Your task to perform on an android device: Go to Android settings Image 0: 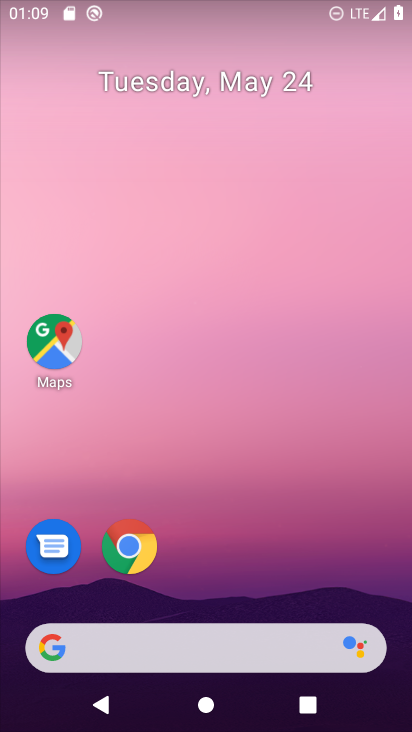
Step 0: drag from (222, 692) to (284, 101)
Your task to perform on an android device: Go to Android settings Image 1: 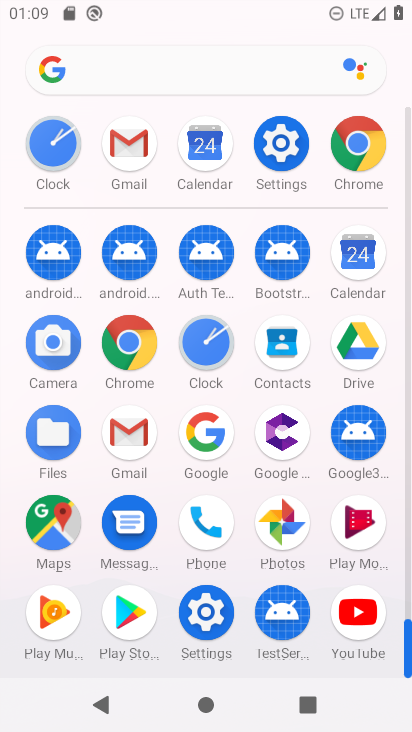
Step 1: click (277, 147)
Your task to perform on an android device: Go to Android settings Image 2: 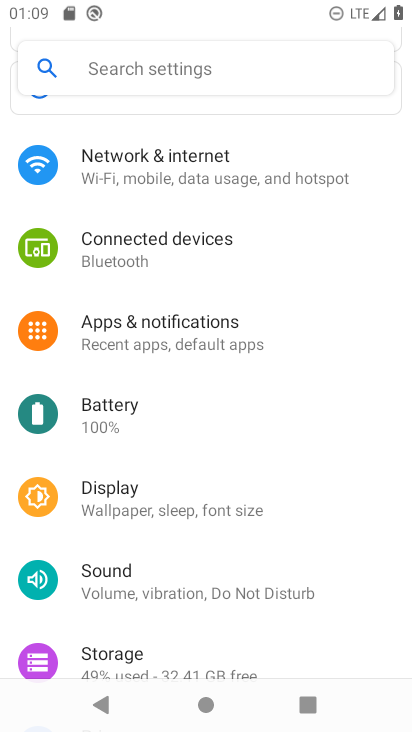
Step 2: drag from (184, 702) to (277, 119)
Your task to perform on an android device: Go to Android settings Image 3: 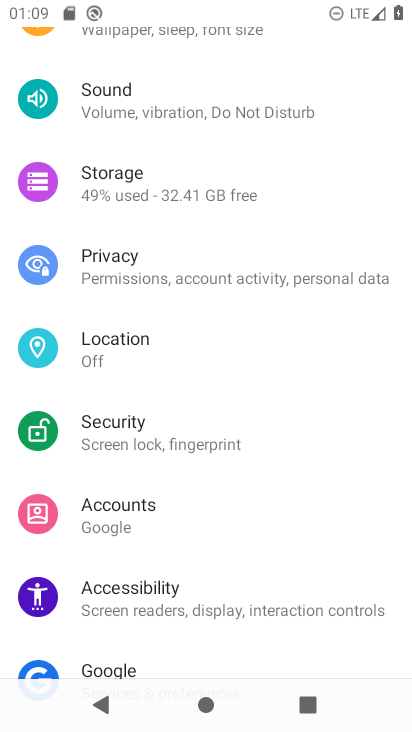
Step 3: drag from (210, 622) to (280, 180)
Your task to perform on an android device: Go to Android settings Image 4: 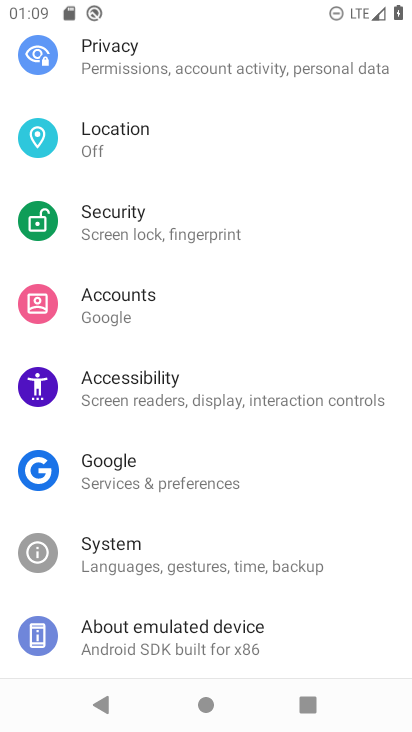
Step 4: click (119, 645)
Your task to perform on an android device: Go to Android settings Image 5: 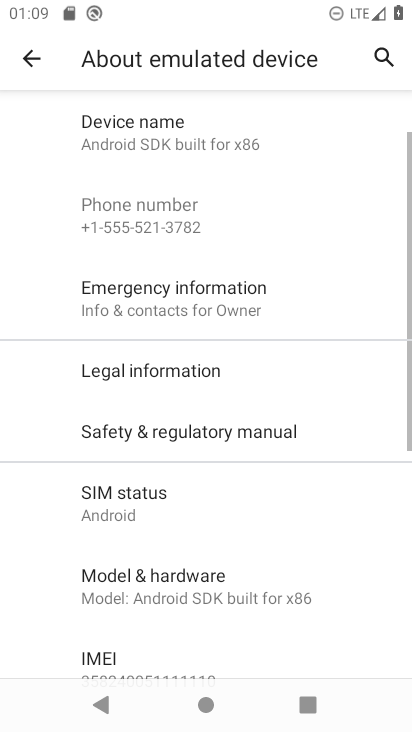
Step 5: drag from (264, 557) to (330, 164)
Your task to perform on an android device: Go to Android settings Image 6: 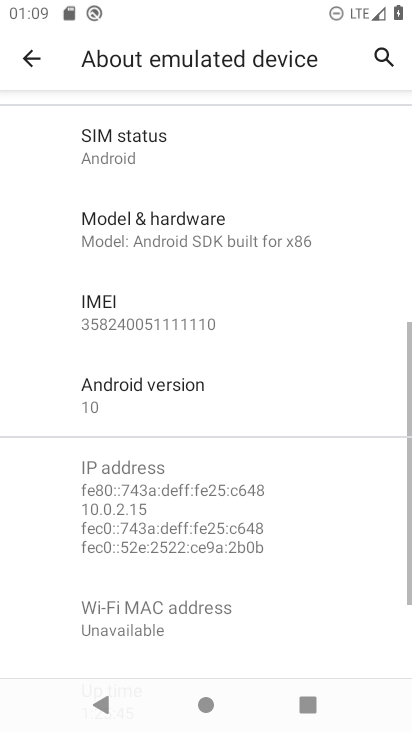
Step 6: click (136, 399)
Your task to perform on an android device: Go to Android settings Image 7: 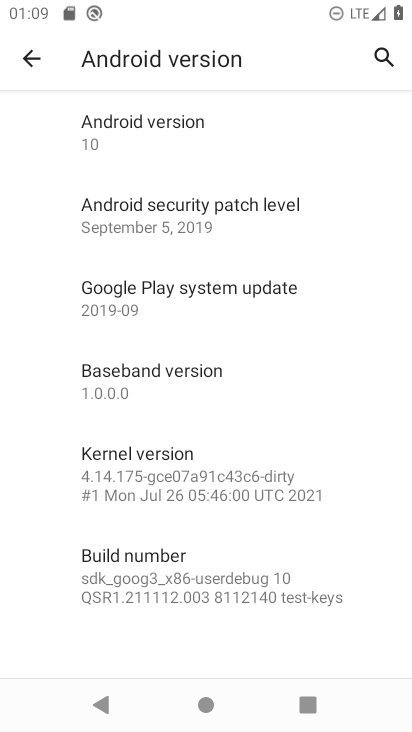
Step 7: task complete